Your task to perform on an android device: stop showing notifications on the lock screen Image 0: 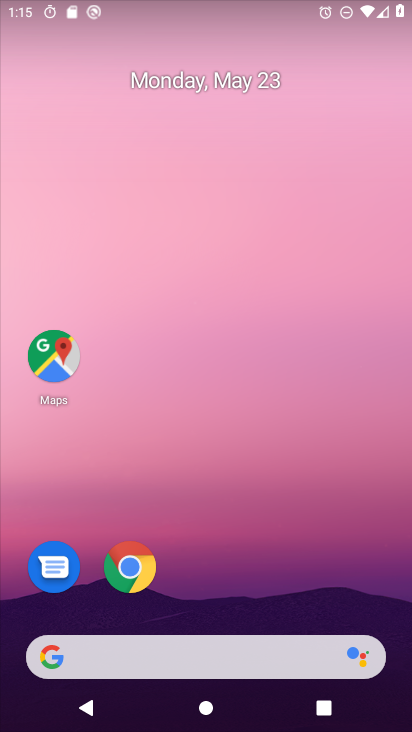
Step 0: drag from (184, 621) to (331, 36)
Your task to perform on an android device: stop showing notifications on the lock screen Image 1: 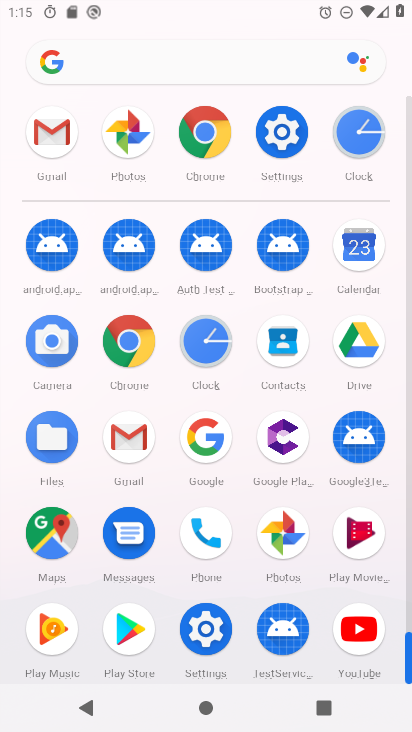
Step 1: click (275, 208)
Your task to perform on an android device: stop showing notifications on the lock screen Image 2: 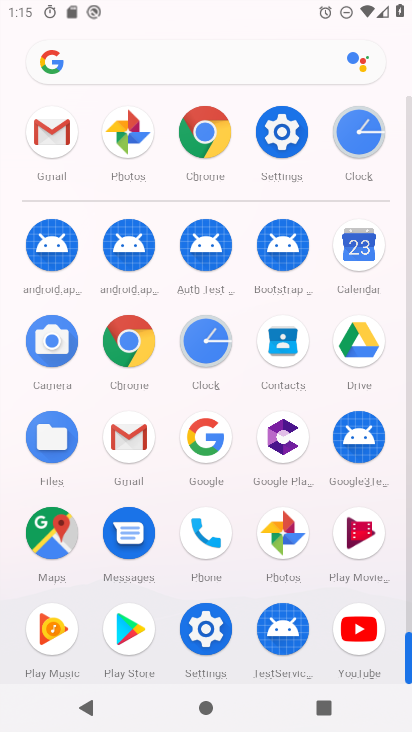
Step 2: click (279, 149)
Your task to perform on an android device: stop showing notifications on the lock screen Image 3: 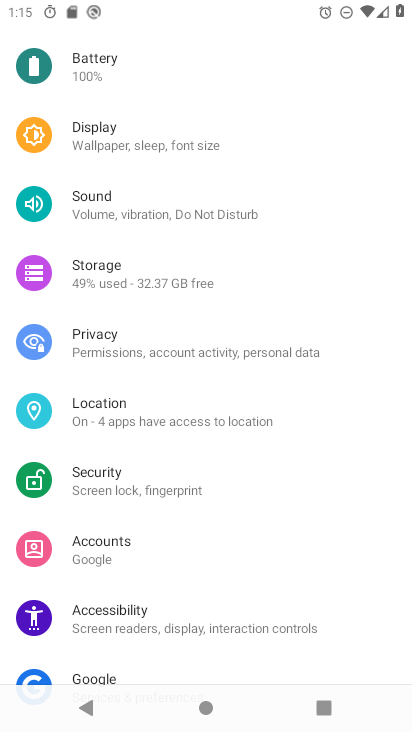
Step 3: drag from (279, 149) to (225, 588)
Your task to perform on an android device: stop showing notifications on the lock screen Image 4: 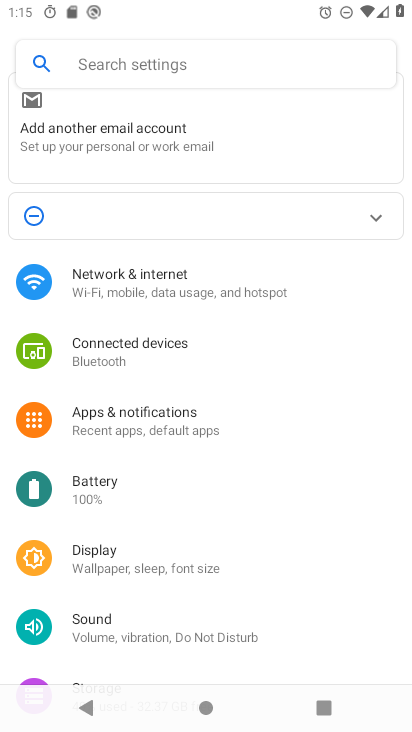
Step 4: click (106, 415)
Your task to perform on an android device: stop showing notifications on the lock screen Image 5: 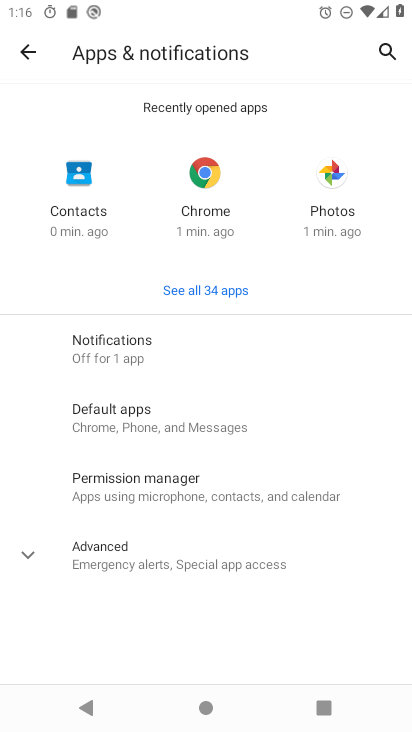
Step 5: click (195, 355)
Your task to perform on an android device: stop showing notifications on the lock screen Image 6: 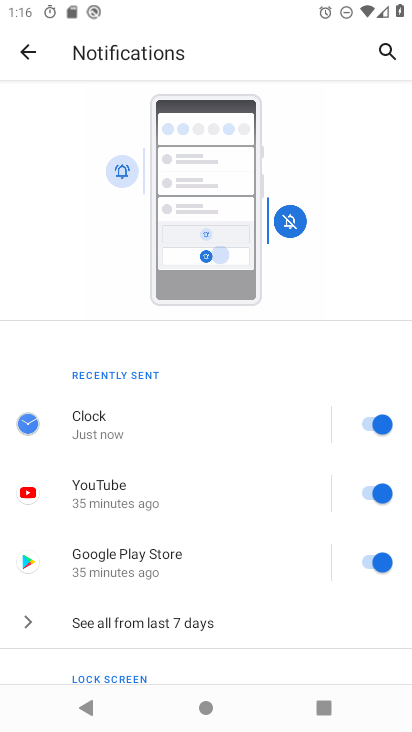
Step 6: drag from (103, 674) to (227, 292)
Your task to perform on an android device: stop showing notifications on the lock screen Image 7: 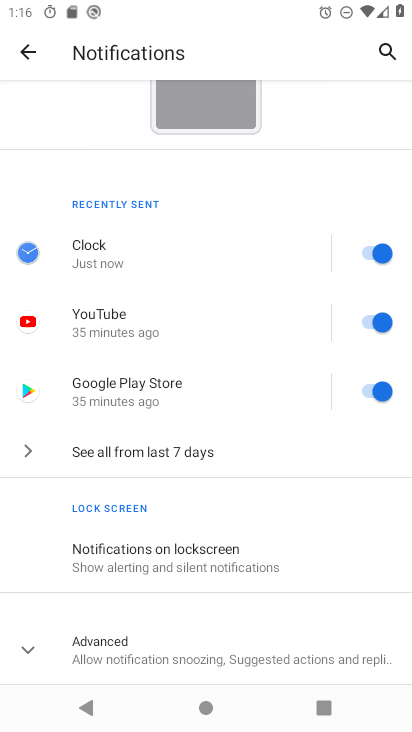
Step 7: click (158, 571)
Your task to perform on an android device: stop showing notifications on the lock screen Image 8: 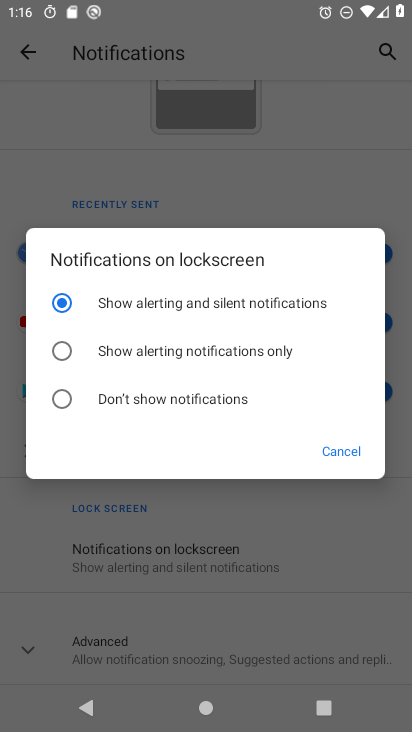
Step 8: click (154, 400)
Your task to perform on an android device: stop showing notifications on the lock screen Image 9: 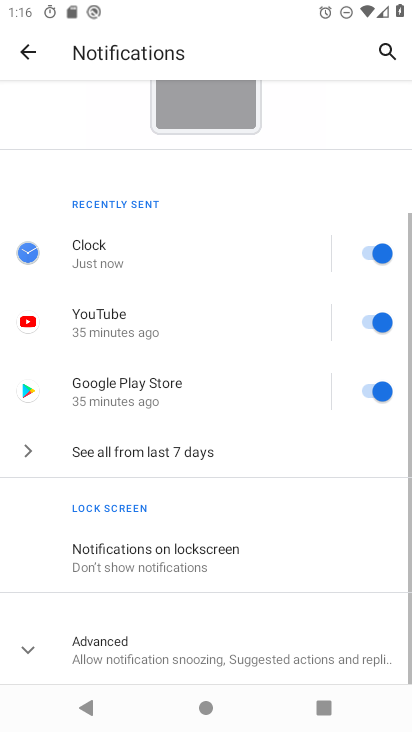
Step 9: task complete